Your task to perform on an android device: Do I have any events today? Image 0: 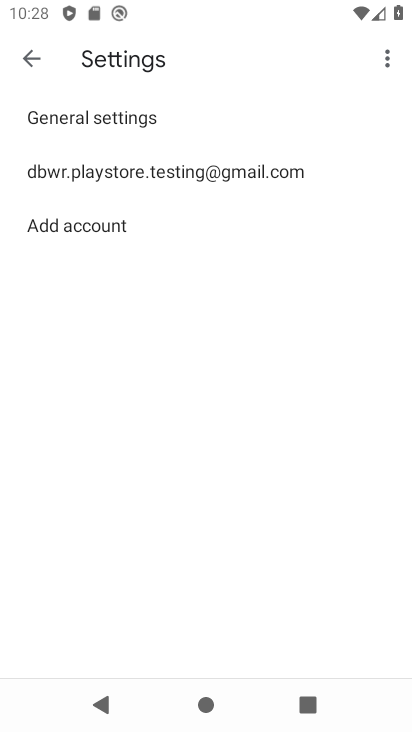
Step 0: press home button
Your task to perform on an android device: Do I have any events today? Image 1: 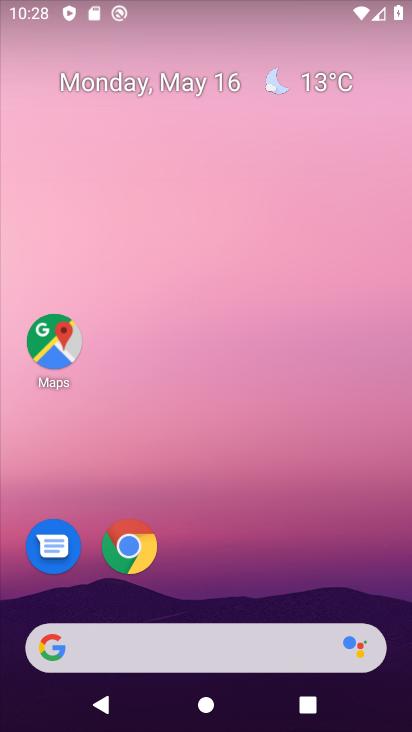
Step 1: drag from (314, 528) to (348, 42)
Your task to perform on an android device: Do I have any events today? Image 2: 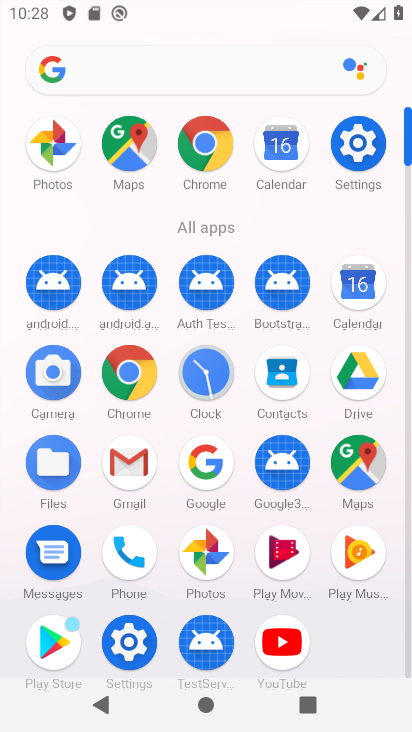
Step 2: click (377, 279)
Your task to perform on an android device: Do I have any events today? Image 3: 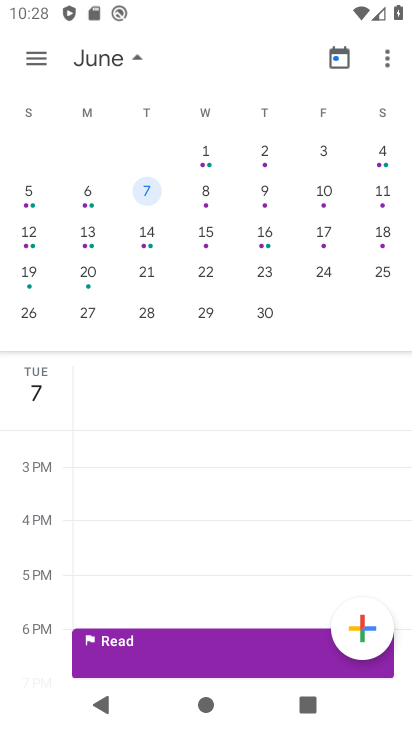
Step 3: task complete